Your task to perform on an android device: Open Reddit.com Image 0: 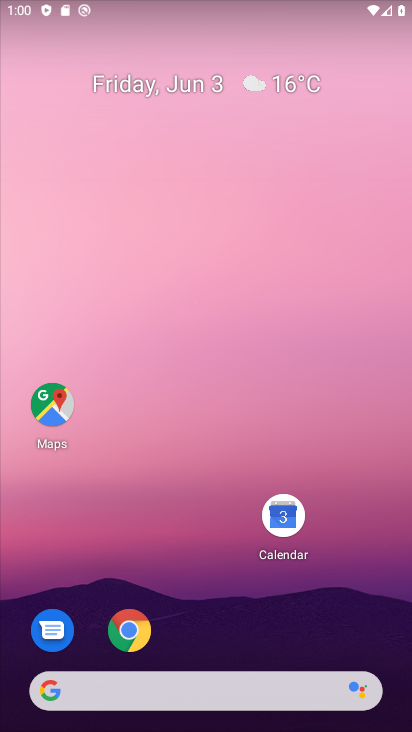
Step 0: drag from (264, 717) to (196, 142)
Your task to perform on an android device: Open Reddit.com Image 1: 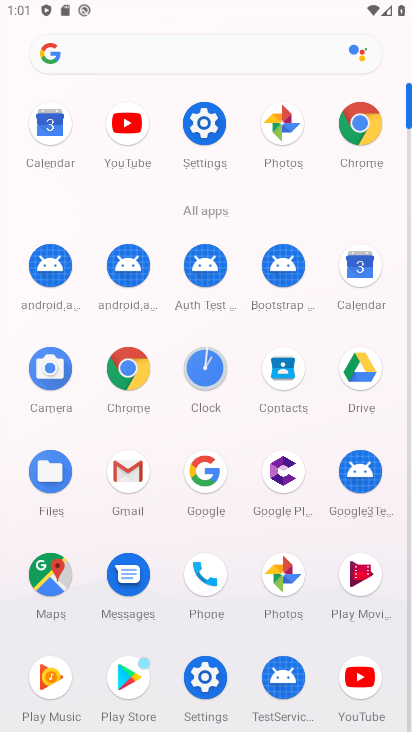
Step 1: click (341, 124)
Your task to perform on an android device: Open Reddit.com Image 2: 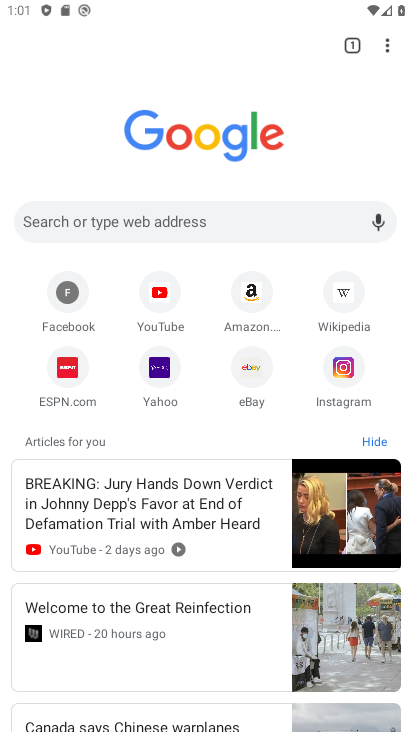
Step 2: click (135, 222)
Your task to perform on an android device: Open Reddit.com Image 3: 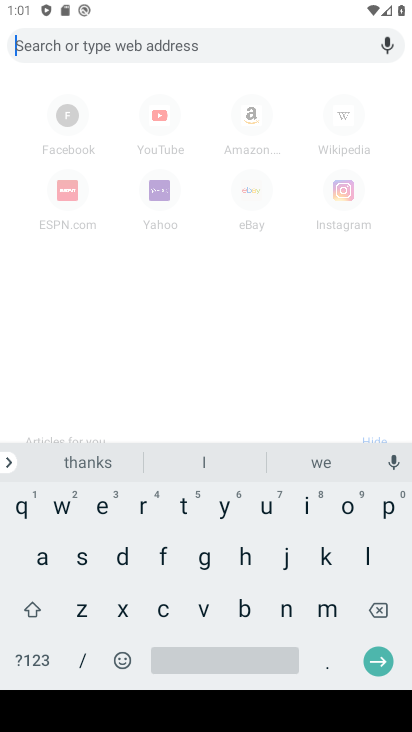
Step 3: click (142, 503)
Your task to perform on an android device: Open Reddit.com Image 4: 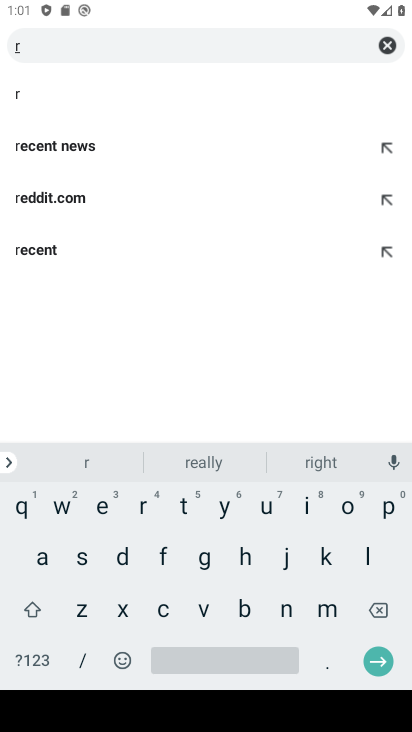
Step 4: click (100, 511)
Your task to perform on an android device: Open Reddit.com Image 5: 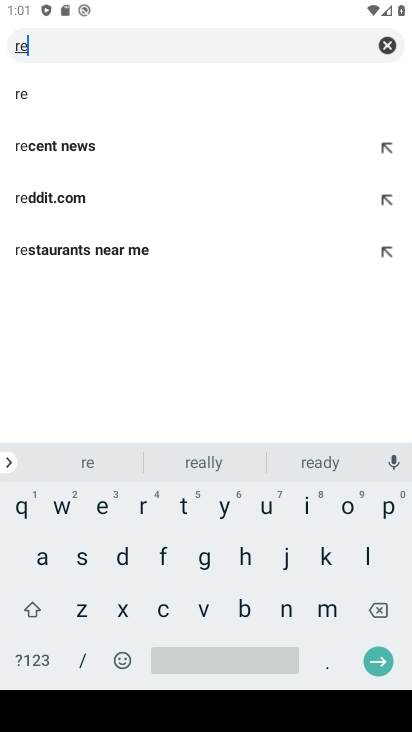
Step 5: click (66, 199)
Your task to perform on an android device: Open Reddit.com Image 6: 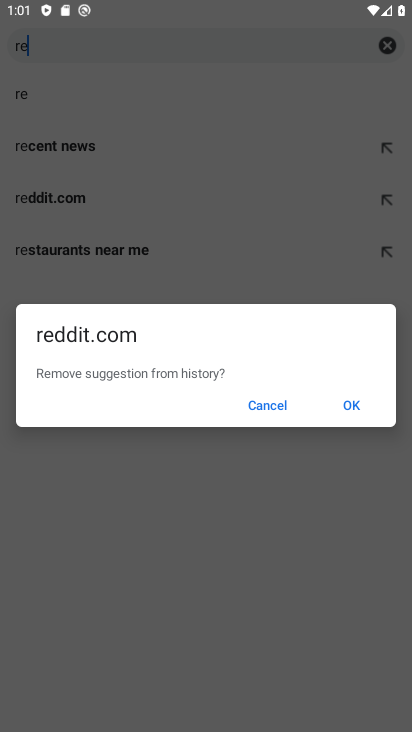
Step 6: click (346, 406)
Your task to perform on an android device: Open Reddit.com Image 7: 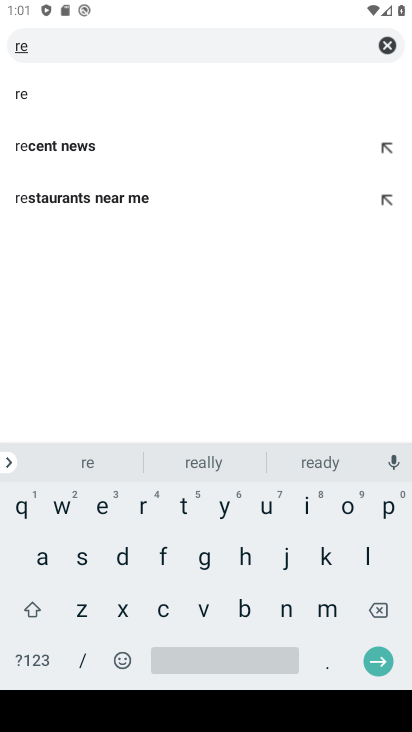
Step 7: click (109, 563)
Your task to perform on an android device: Open Reddit.com Image 8: 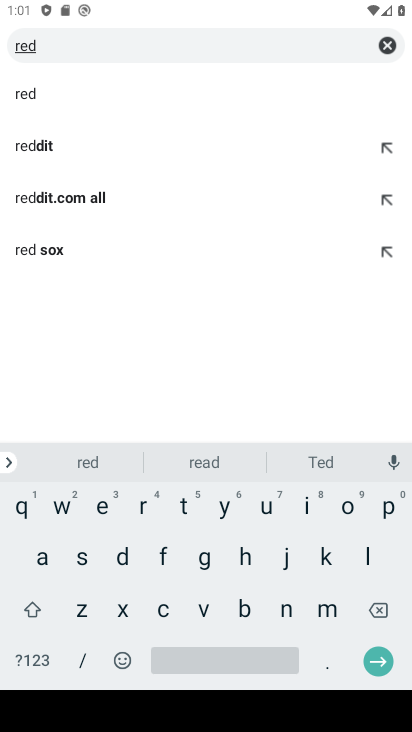
Step 8: click (56, 153)
Your task to perform on an android device: Open Reddit.com Image 9: 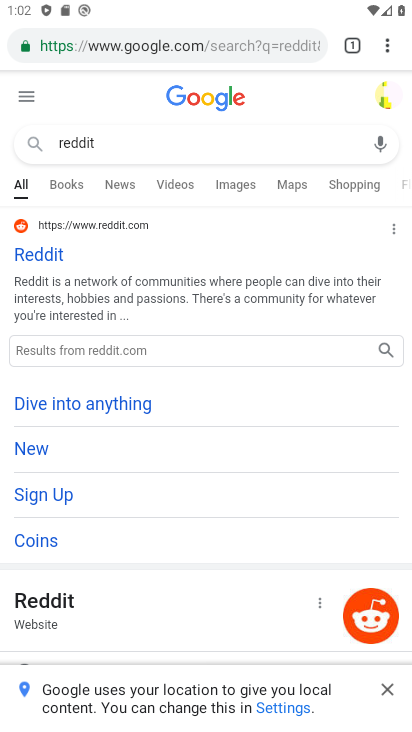
Step 9: click (51, 260)
Your task to perform on an android device: Open Reddit.com Image 10: 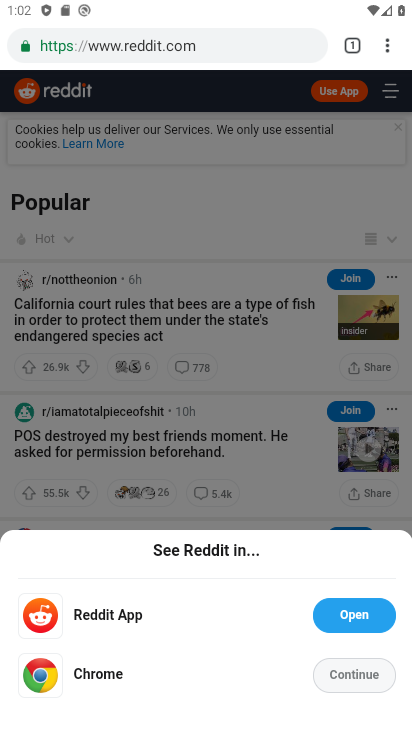
Step 10: task complete